Your task to perform on an android device: Do I have any events tomorrow? Image 0: 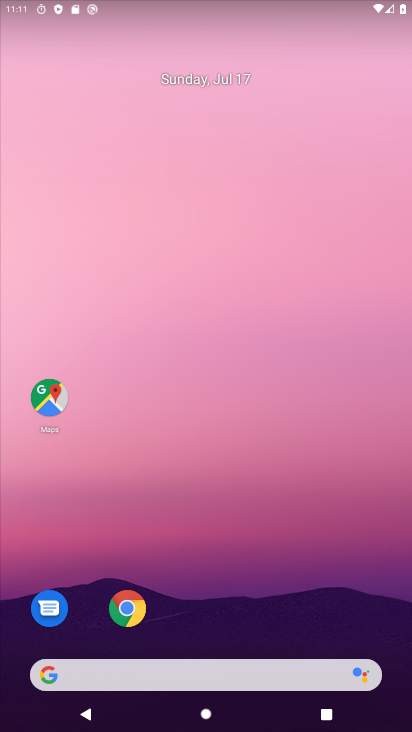
Step 0: drag from (240, 635) to (295, 78)
Your task to perform on an android device: Do I have any events tomorrow? Image 1: 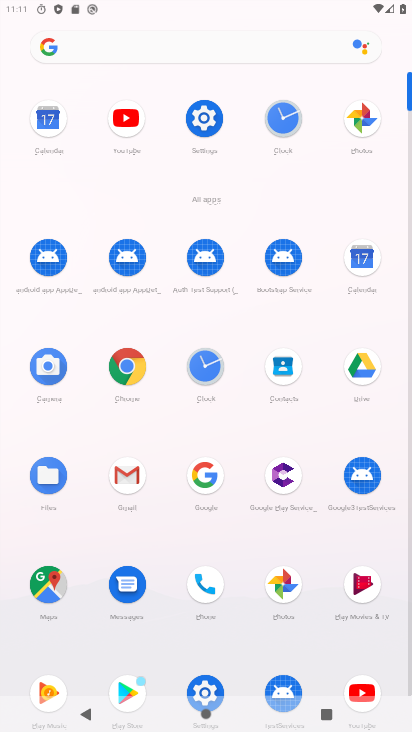
Step 1: click (360, 259)
Your task to perform on an android device: Do I have any events tomorrow? Image 2: 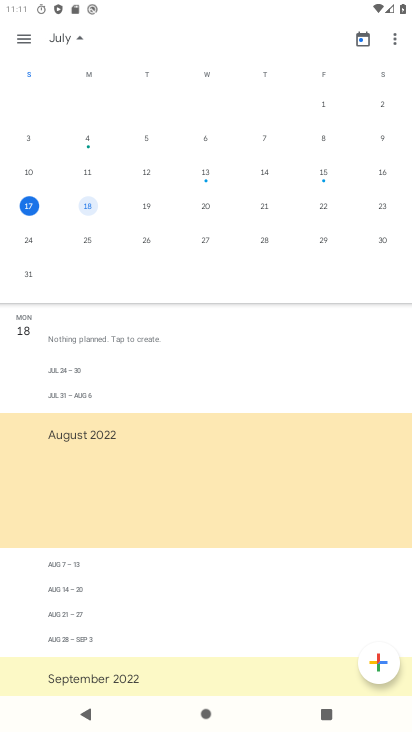
Step 2: click (92, 207)
Your task to perform on an android device: Do I have any events tomorrow? Image 3: 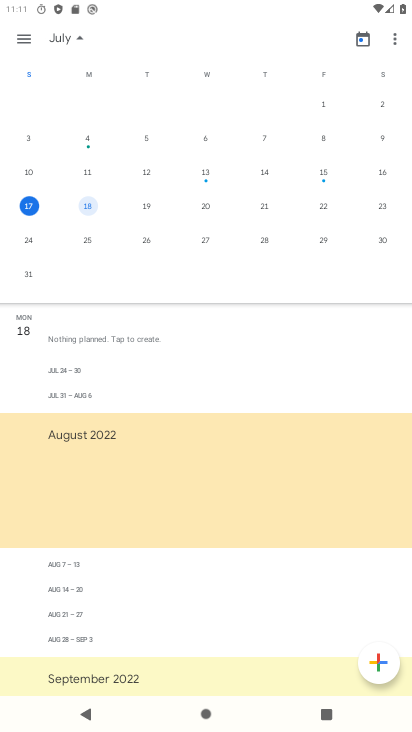
Step 3: task complete